Your task to perform on an android device: see tabs open on other devices in the chrome app Image 0: 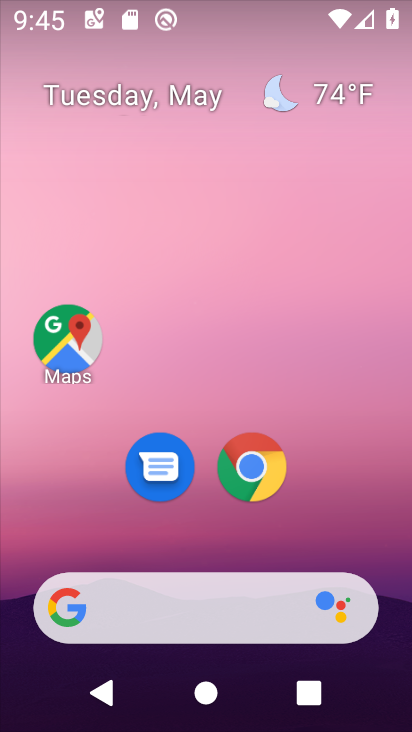
Step 0: drag from (321, 462) to (324, 206)
Your task to perform on an android device: see tabs open on other devices in the chrome app Image 1: 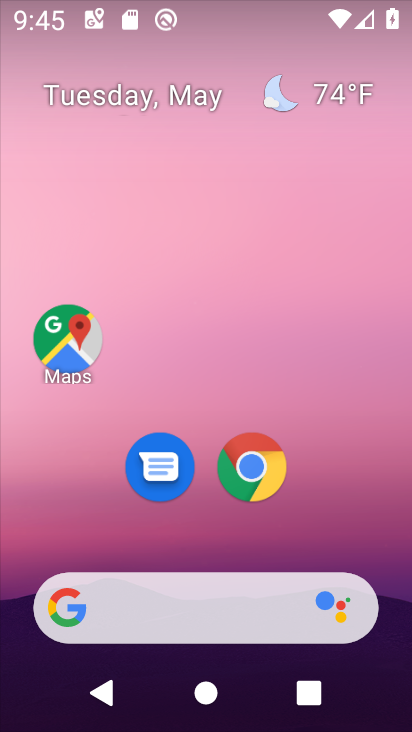
Step 1: drag from (294, 491) to (319, 187)
Your task to perform on an android device: see tabs open on other devices in the chrome app Image 2: 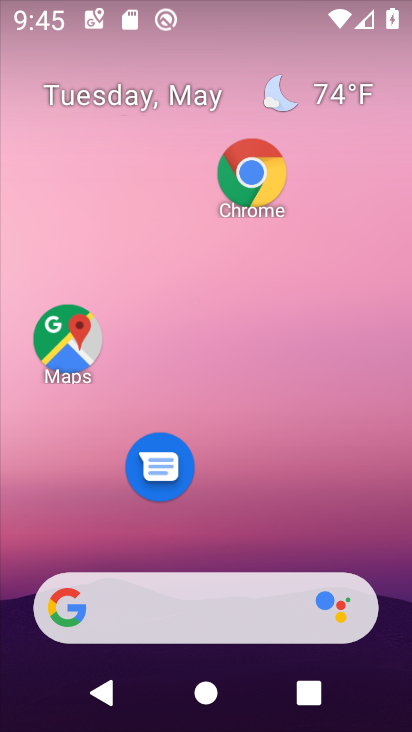
Step 2: drag from (343, 468) to (368, 141)
Your task to perform on an android device: see tabs open on other devices in the chrome app Image 3: 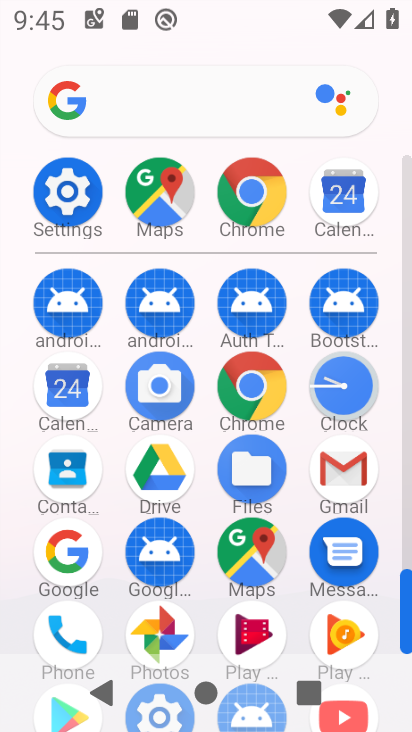
Step 3: click (270, 400)
Your task to perform on an android device: see tabs open on other devices in the chrome app Image 4: 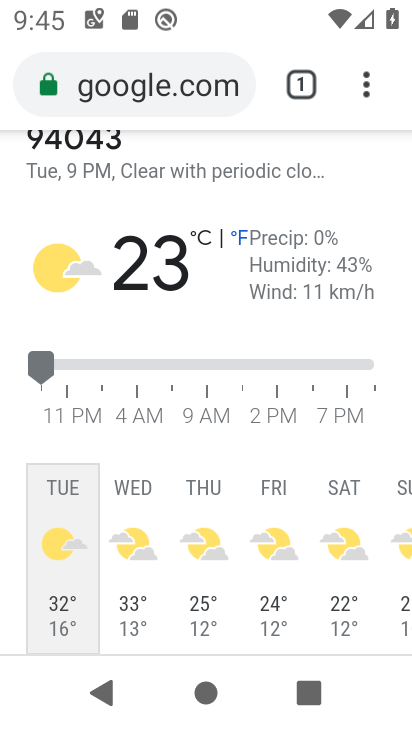
Step 4: click (311, 87)
Your task to perform on an android device: see tabs open on other devices in the chrome app Image 5: 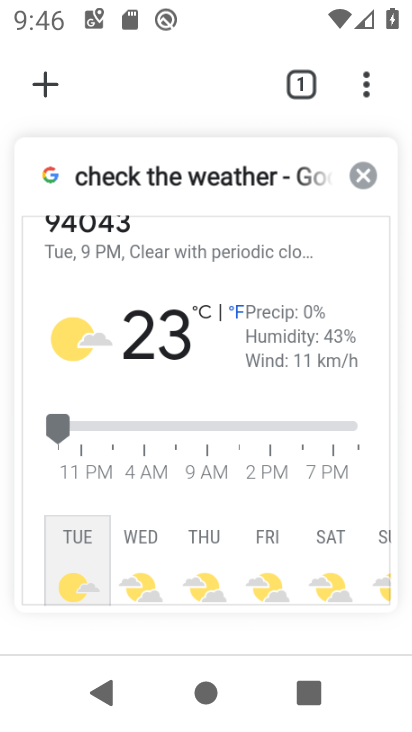
Step 5: task complete